Your task to perform on an android device: turn off priority inbox in the gmail app Image 0: 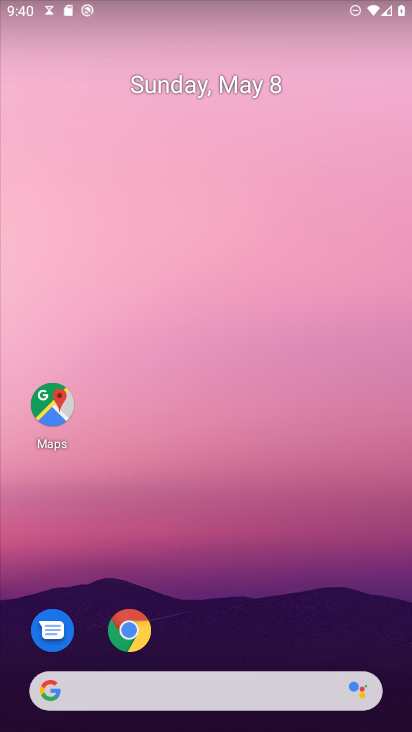
Step 0: drag from (181, 665) to (381, 50)
Your task to perform on an android device: turn off priority inbox in the gmail app Image 1: 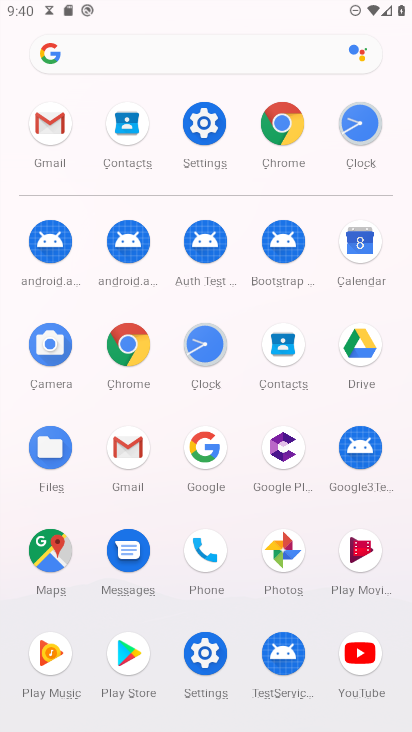
Step 1: click (47, 129)
Your task to perform on an android device: turn off priority inbox in the gmail app Image 2: 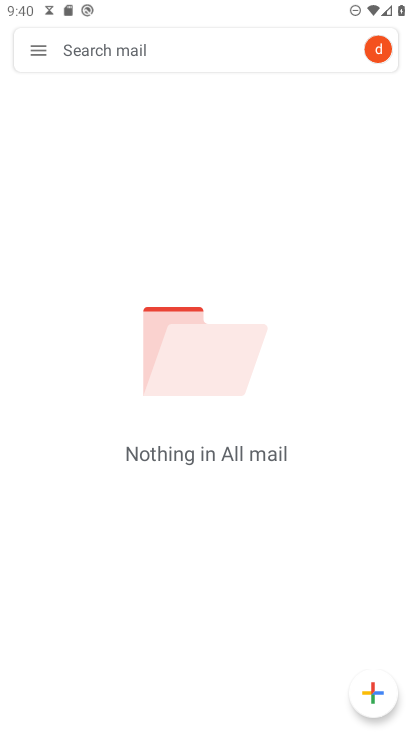
Step 2: click (36, 47)
Your task to perform on an android device: turn off priority inbox in the gmail app Image 3: 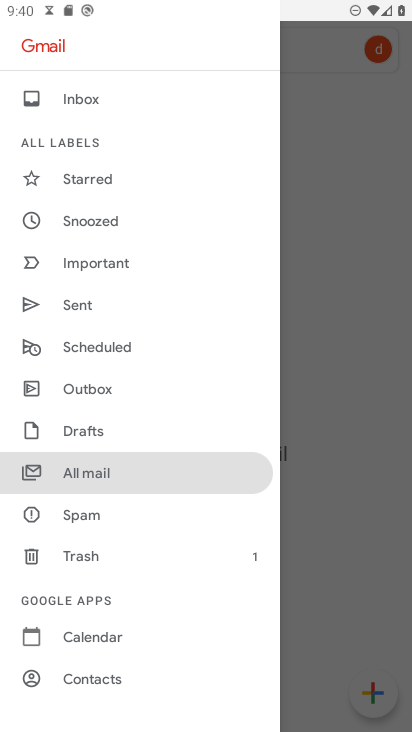
Step 3: drag from (135, 659) to (236, 229)
Your task to perform on an android device: turn off priority inbox in the gmail app Image 4: 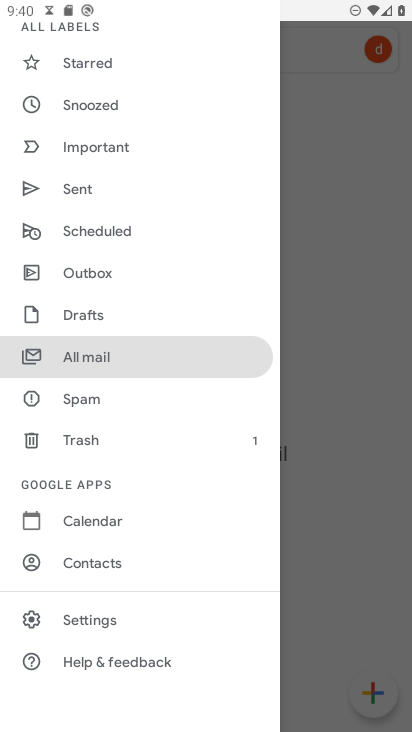
Step 4: click (101, 619)
Your task to perform on an android device: turn off priority inbox in the gmail app Image 5: 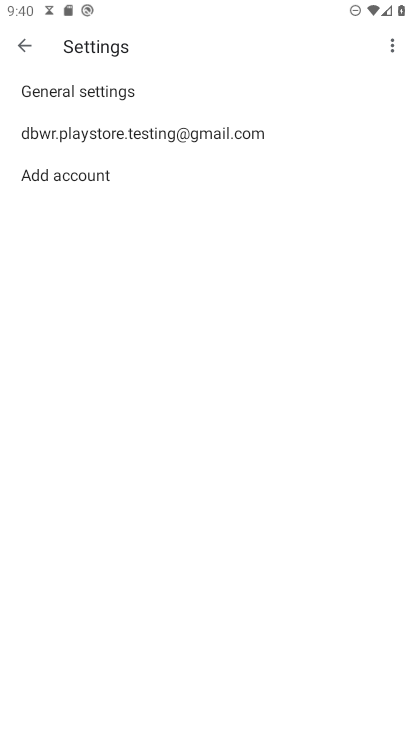
Step 5: click (180, 135)
Your task to perform on an android device: turn off priority inbox in the gmail app Image 6: 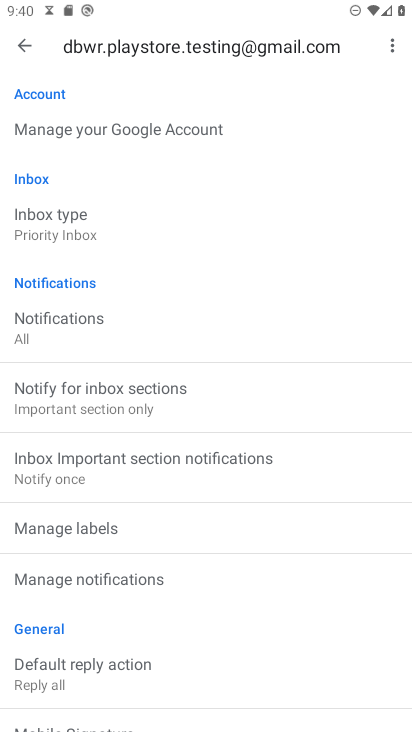
Step 6: click (71, 229)
Your task to perform on an android device: turn off priority inbox in the gmail app Image 7: 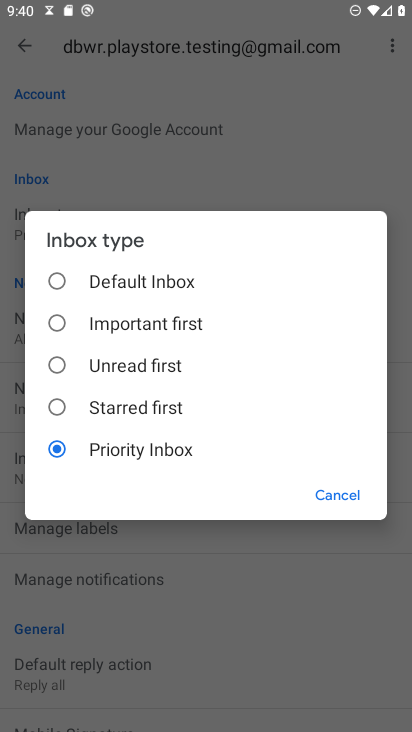
Step 7: click (58, 278)
Your task to perform on an android device: turn off priority inbox in the gmail app Image 8: 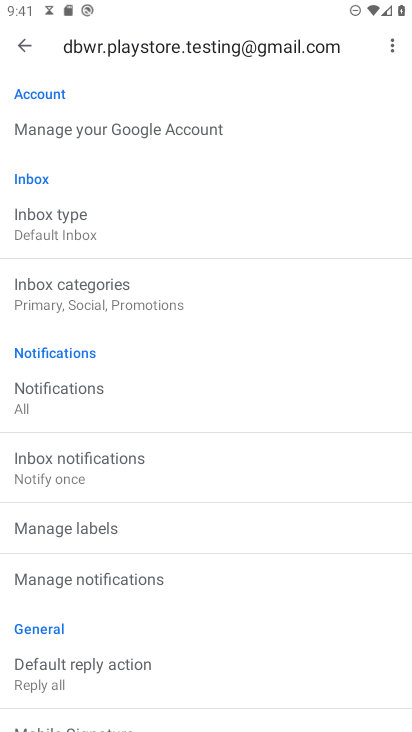
Step 8: task complete